Your task to perform on an android device: Empty the shopping cart on walmart. Search for "acer predator" on walmart, select the first entry, add it to the cart, then select checkout. Image 0: 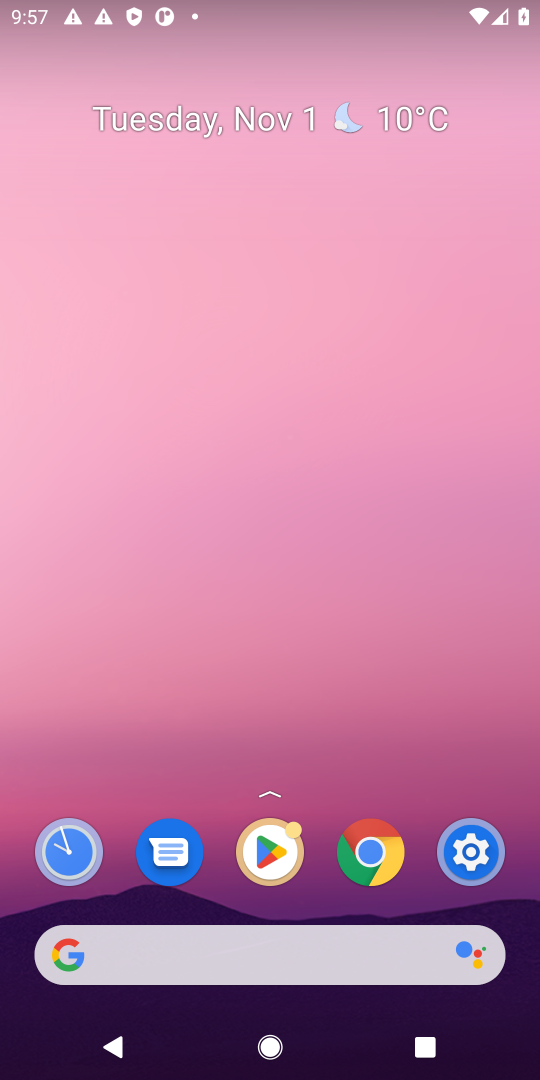
Step 0: press home button
Your task to perform on an android device: Empty the shopping cart on walmart. Search for "acer predator" on walmart, select the first entry, add it to the cart, then select checkout. Image 1: 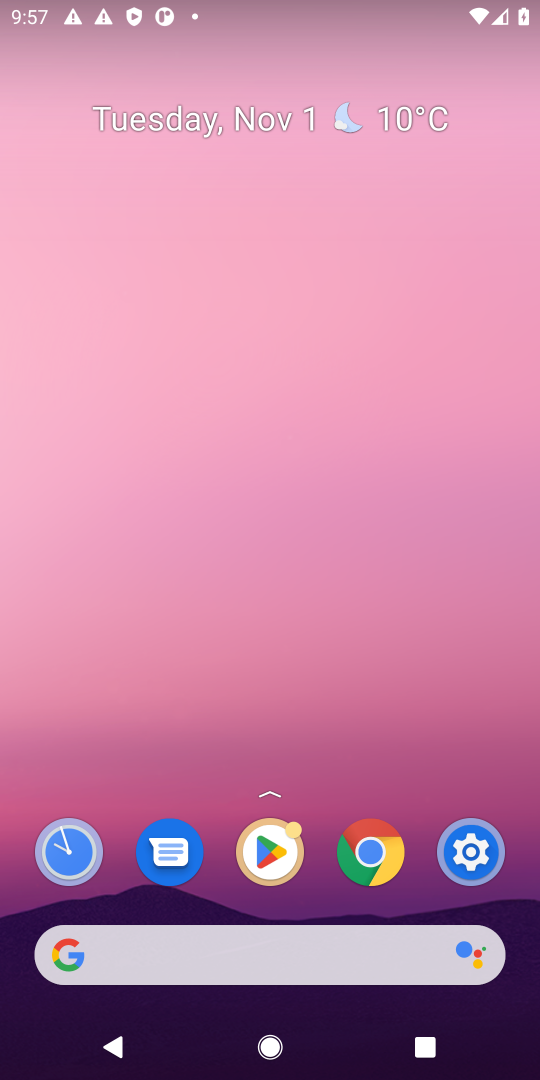
Step 1: click (59, 954)
Your task to perform on an android device: Empty the shopping cart on walmart. Search for "acer predator" on walmart, select the first entry, add it to the cart, then select checkout. Image 2: 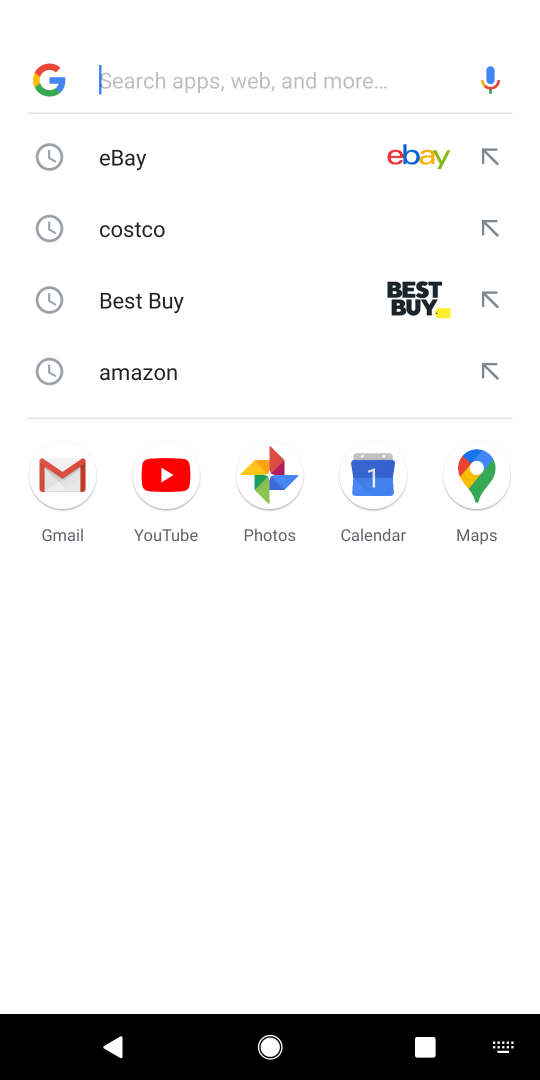
Step 2: type "walmart"
Your task to perform on an android device: Empty the shopping cart on walmart. Search for "acer predator" on walmart, select the first entry, add it to the cart, then select checkout. Image 3: 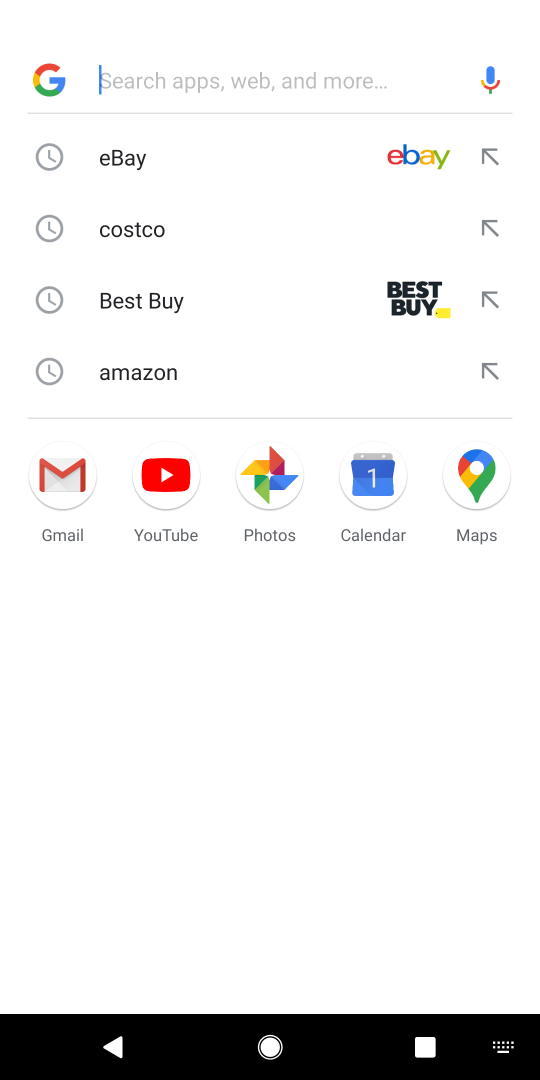
Step 3: click (127, 79)
Your task to perform on an android device: Empty the shopping cart on walmart. Search for "acer predator" on walmart, select the first entry, add it to the cart, then select checkout. Image 4: 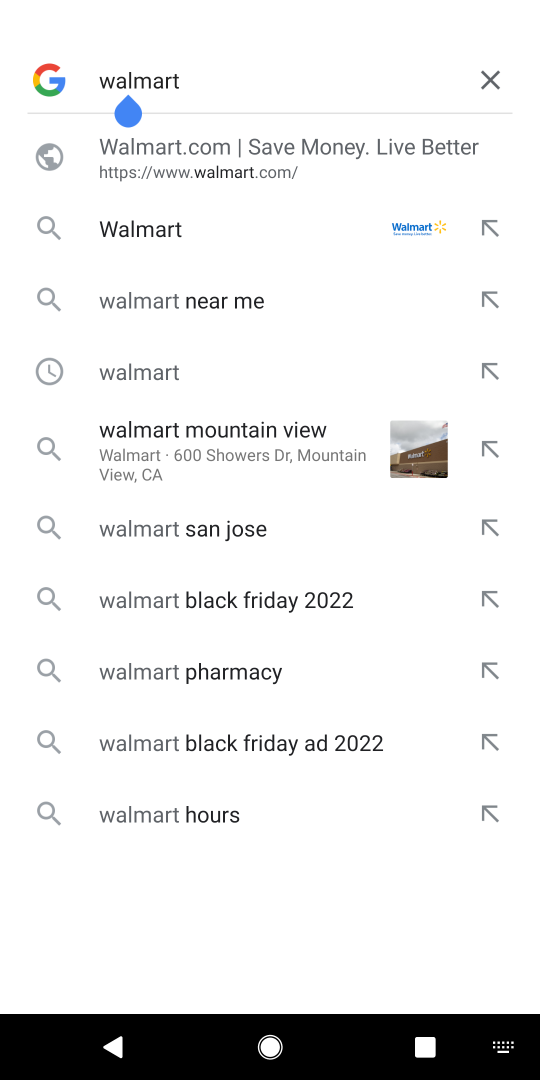
Step 4: click (408, 229)
Your task to perform on an android device: Empty the shopping cart on walmart. Search for "acer predator" on walmart, select the first entry, add it to the cart, then select checkout. Image 5: 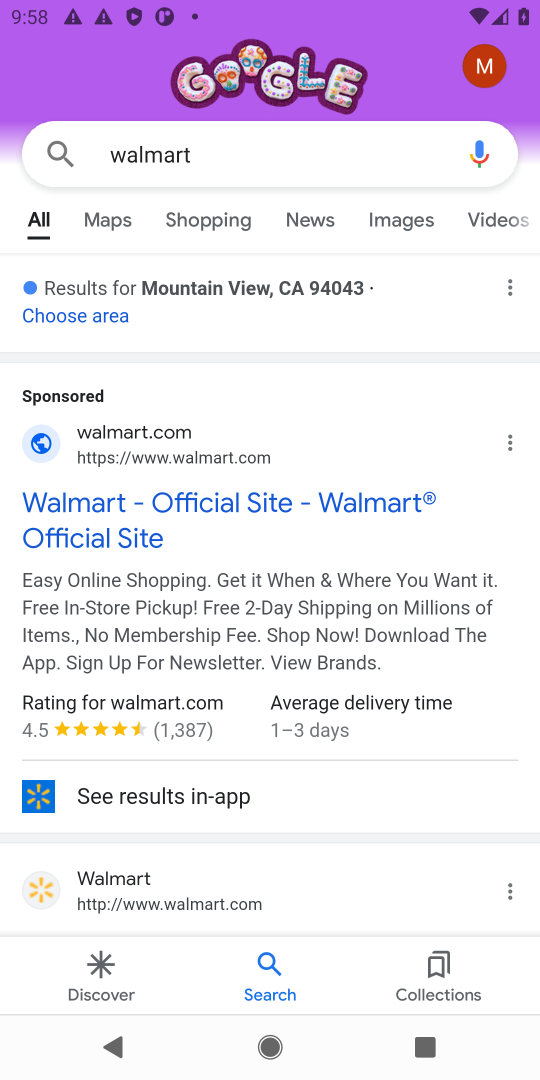
Step 5: click (111, 900)
Your task to perform on an android device: Empty the shopping cart on walmart. Search for "acer predator" on walmart, select the first entry, add it to the cart, then select checkout. Image 6: 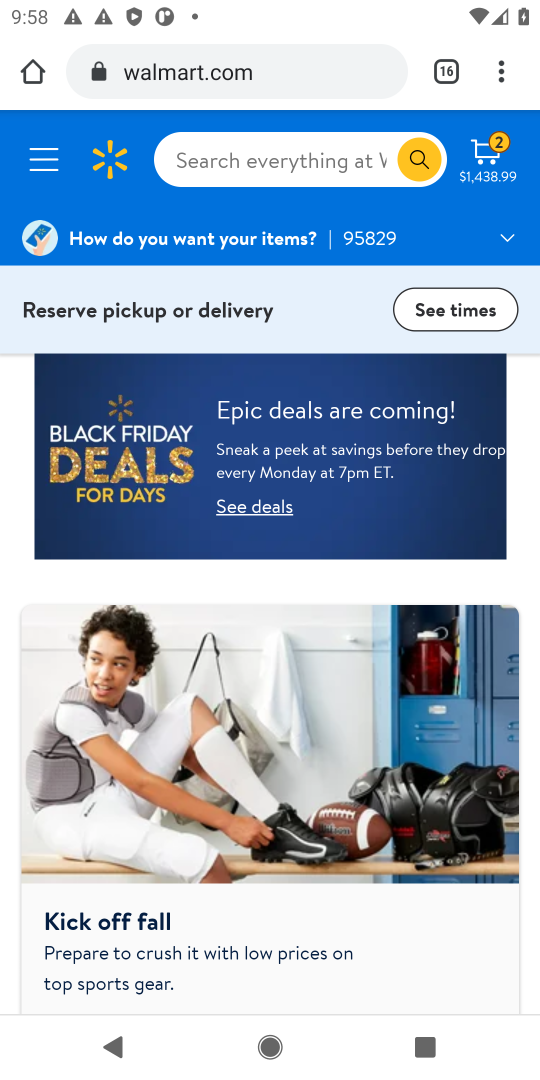
Step 6: click (477, 146)
Your task to perform on an android device: Empty the shopping cart on walmart. Search for "acer predator" on walmart, select the first entry, add it to the cart, then select checkout. Image 7: 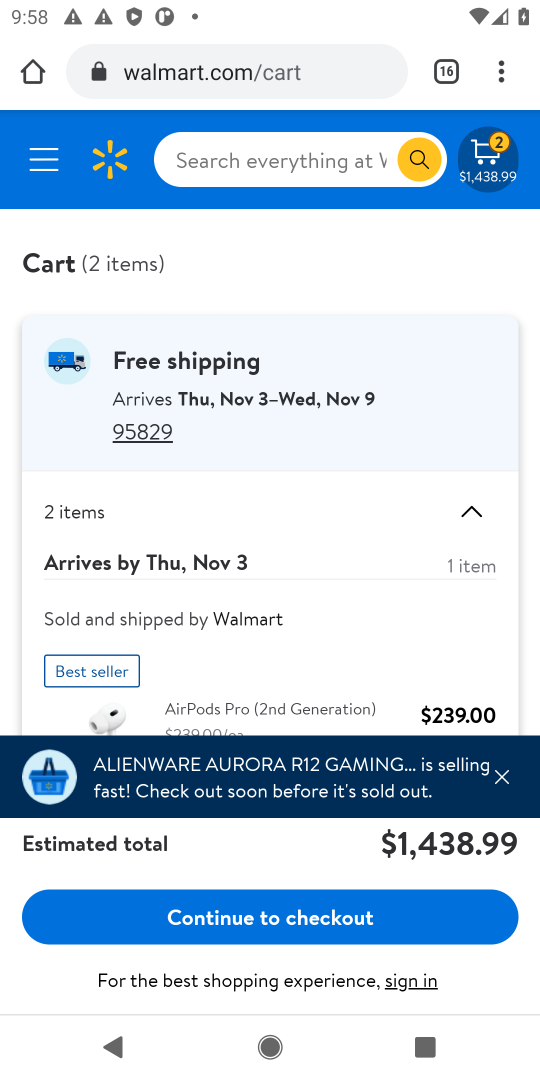
Step 7: click (506, 778)
Your task to perform on an android device: Empty the shopping cart on walmart. Search for "acer predator" on walmart, select the first entry, add it to the cart, then select checkout. Image 8: 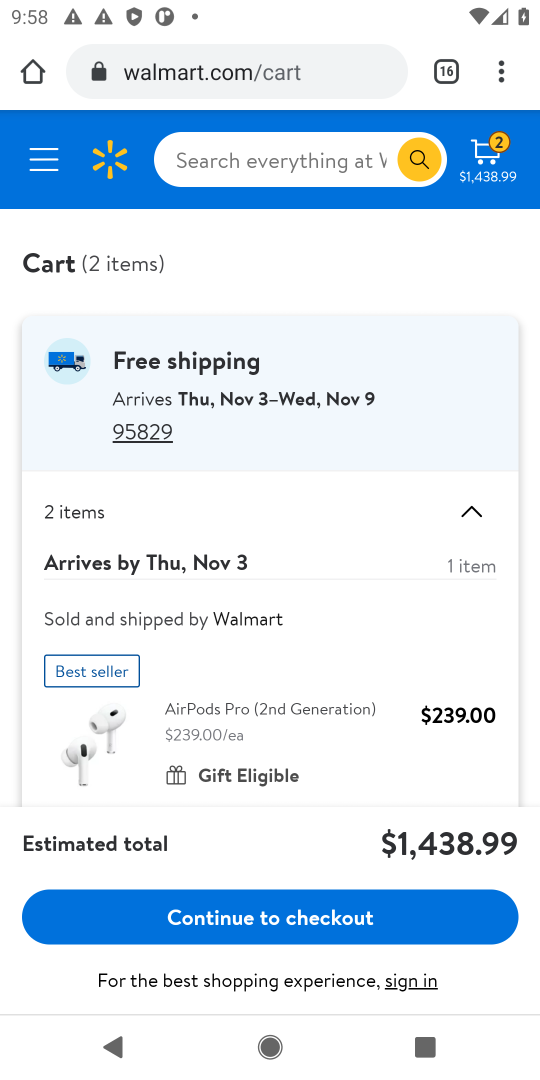
Step 8: drag from (337, 753) to (401, 279)
Your task to perform on an android device: Empty the shopping cart on walmart. Search for "acer predator" on walmart, select the first entry, add it to the cart, then select checkout. Image 9: 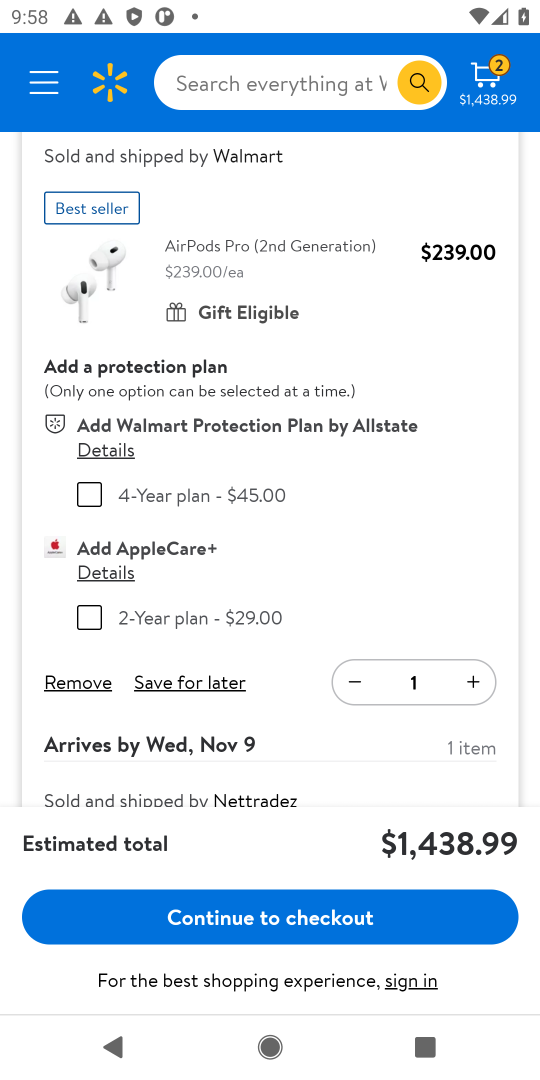
Step 9: click (81, 686)
Your task to perform on an android device: Empty the shopping cart on walmart. Search for "acer predator" on walmart, select the first entry, add it to the cart, then select checkout. Image 10: 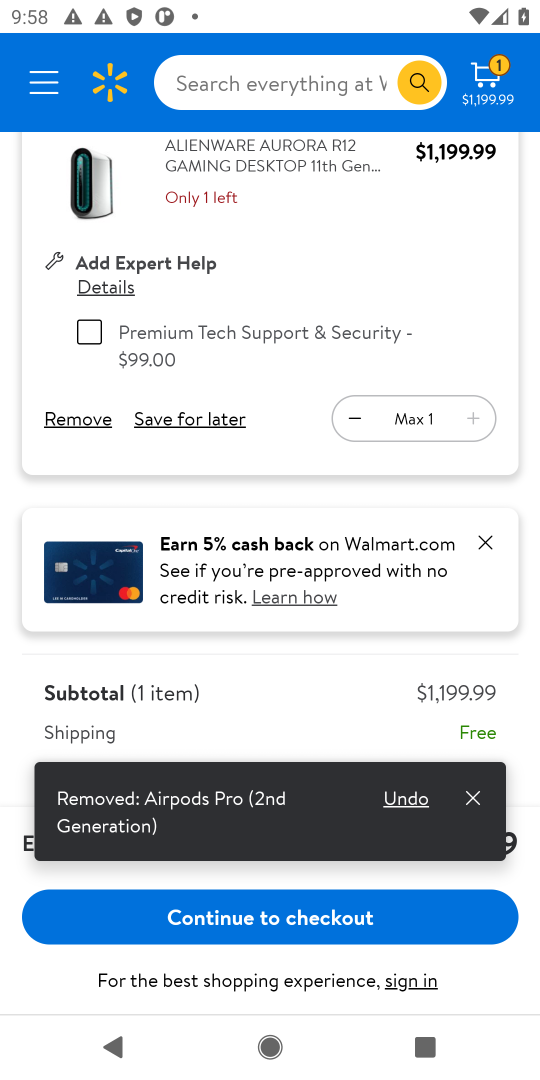
Step 10: click (67, 421)
Your task to perform on an android device: Empty the shopping cart on walmart. Search for "acer predator" on walmart, select the first entry, add it to the cart, then select checkout. Image 11: 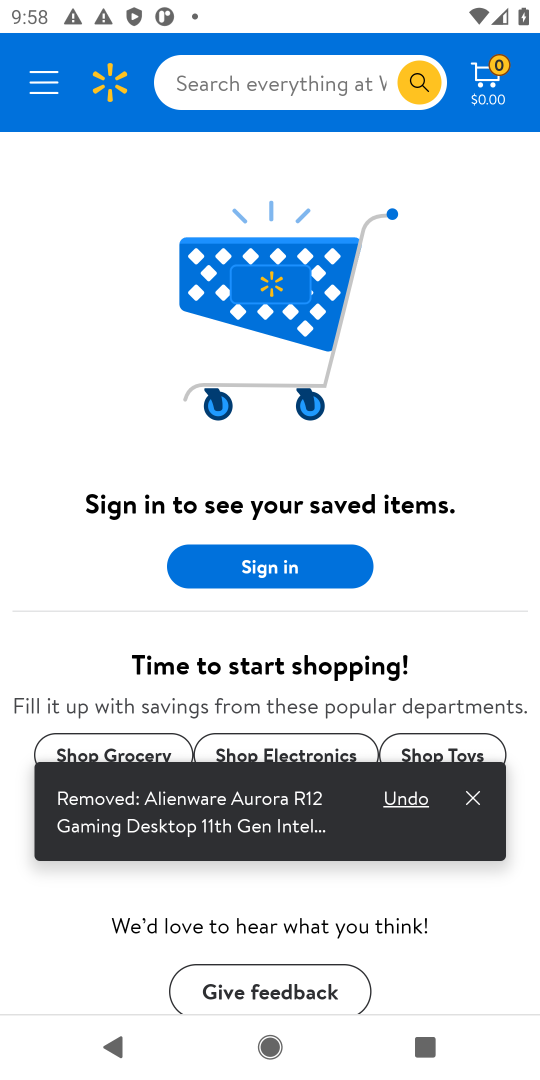
Step 11: click (255, 89)
Your task to perform on an android device: Empty the shopping cart on walmart. Search for "acer predator" on walmart, select the first entry, add it to the cart, then select checkout. Image 12: 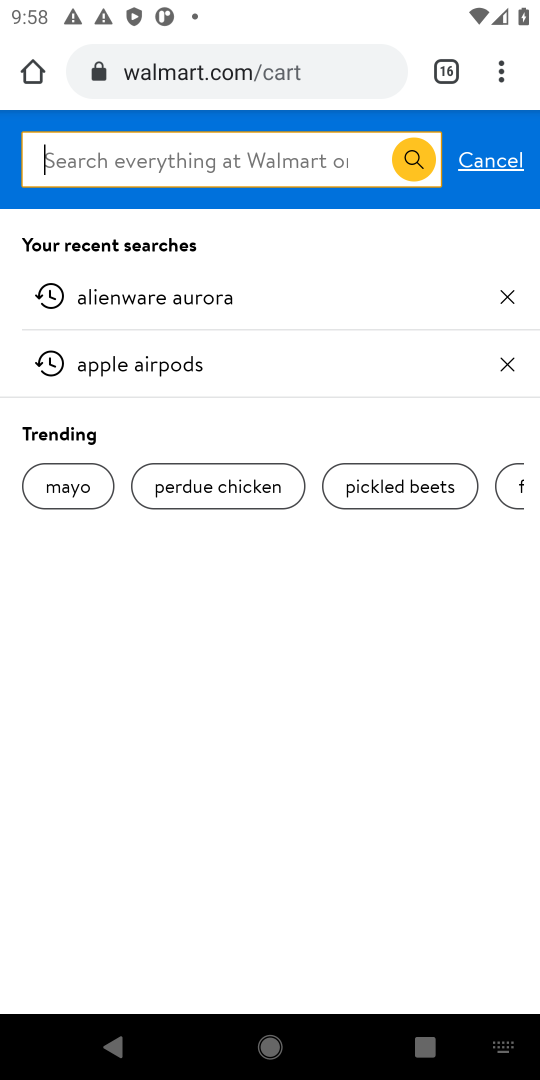
Step 12: type "acer predator"
Your task to perform on an android device: Empty the shopping cart on walmart. Search for "acer predator" on walmart, select the first entry, add it to the cart, then select checkout. Image 13: 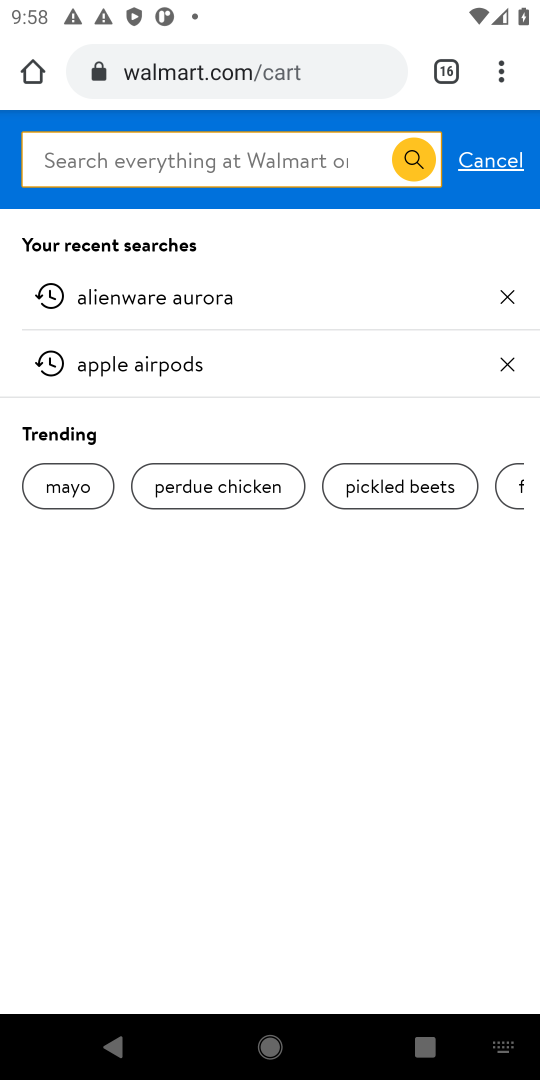
Step 13: click (155, 162)
Your task to perform on an android device: Empty the shopping cart on walmart. Search for "acer predator" on walmart, select the first entry, add it to the cart, then select checkout. Image 14: 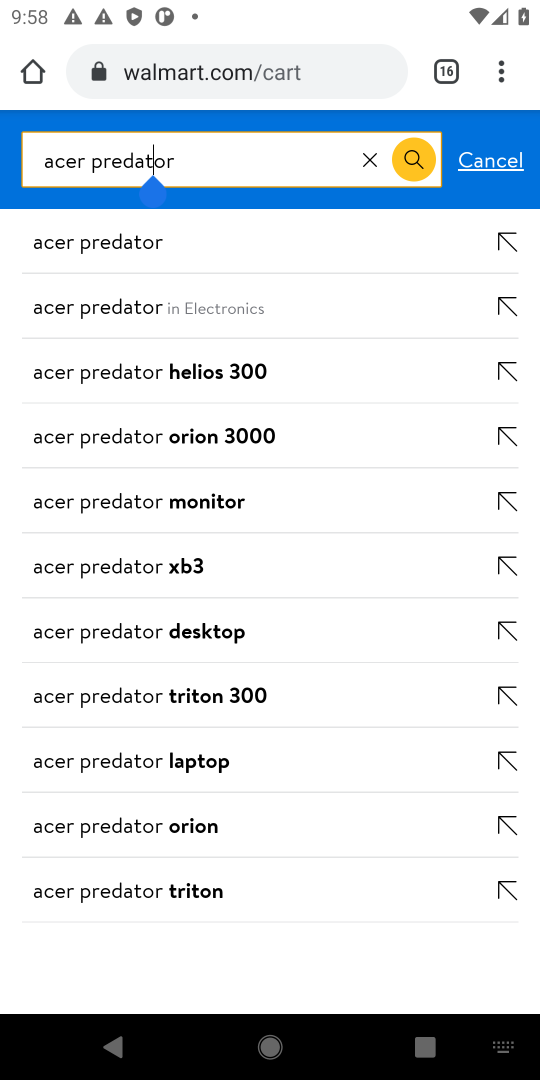
Step 14: press enter
Your task to perform on an android device: Empty the shopping cart on walmart. Search for "acer predator" on walmart, select the first entry, add it to the cart, then select checkout. Image 15: 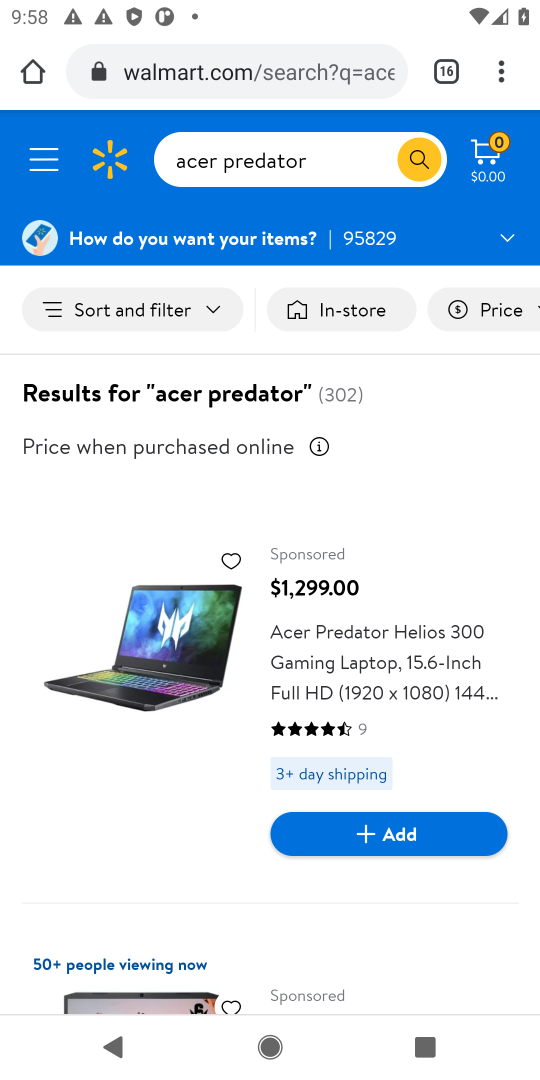
Step 15: click (405, 831)
Your task to perform on an android device: Empty the shopping cart on walmart. Search for "acer predator" on walmart, select the first entry, add it to the cart, then select checkout. Image 16: 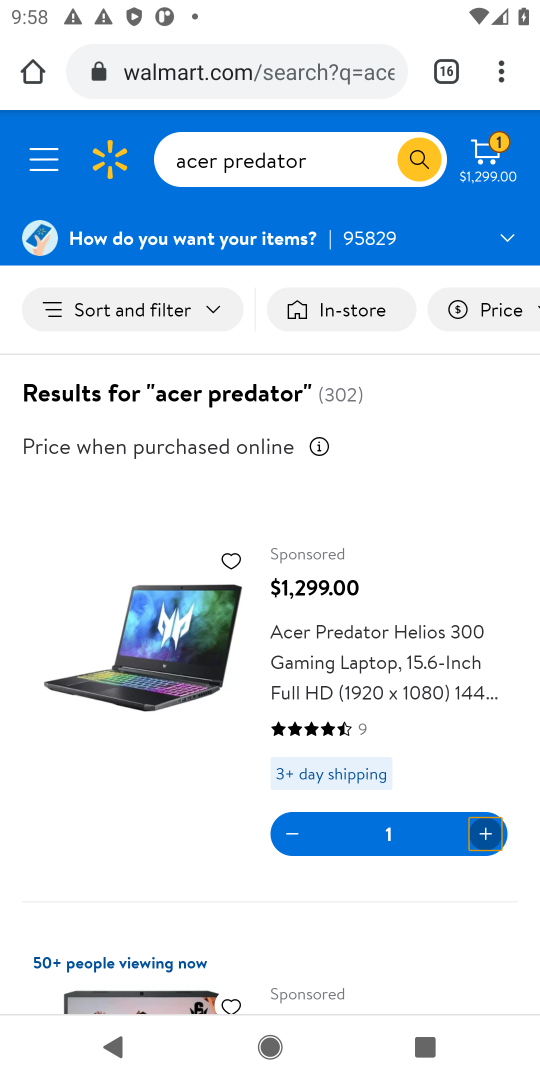
Step 16: click (488, 151)
Your task to perform on an android device: Empty the shopping cart on walmart. Search for "acer predator" on walmart, select the first entry, add it to the cart, then select checkout. Image 17: 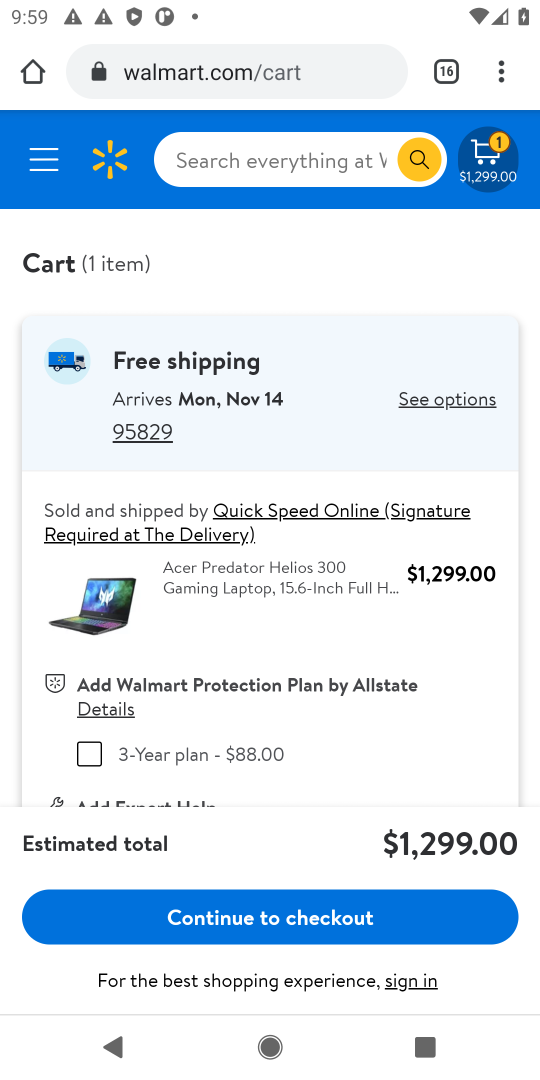
Step 17: click (285, 928)
Your task to perform on an android device: Empty the shopping cart on walmart. Search for "acer predator" on walmart, select the first entry, add it to the cart, then select checkout. Image 18: 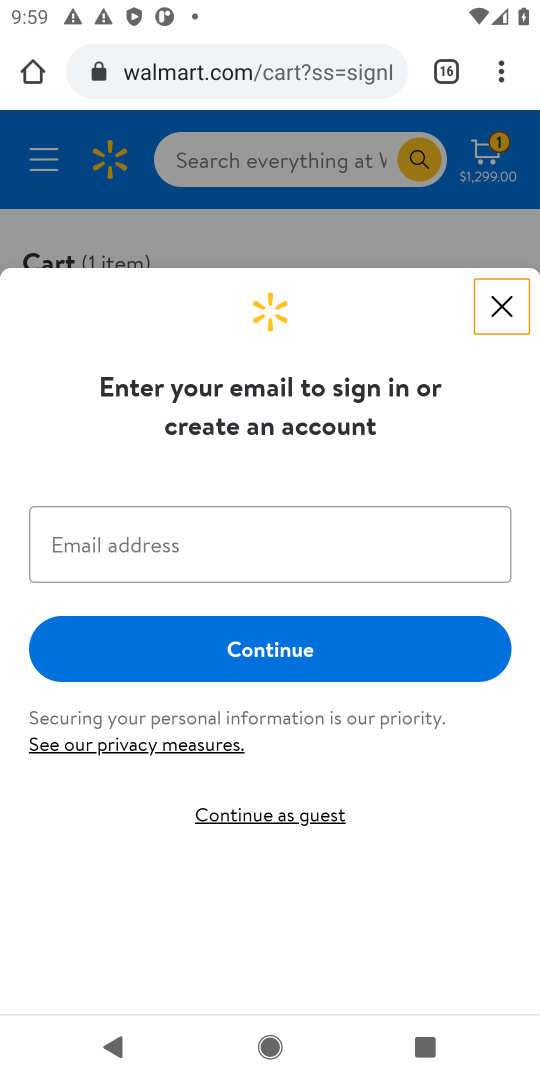
Step 18: task complete